Your task to perform on an android device: open app "Chime – Mobile Banking" Image 0: 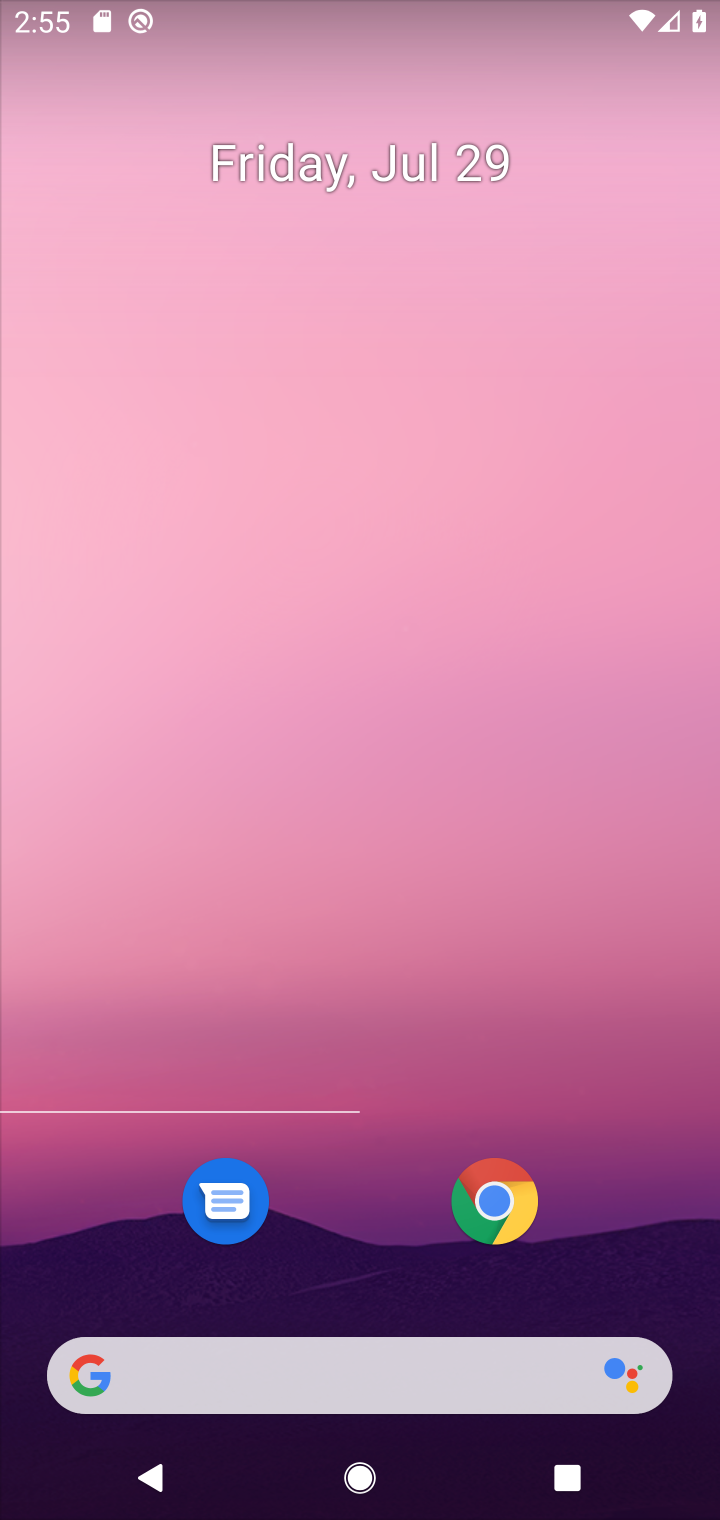
Step 0: press home button
Your task to perform on an android device: open app "Chime – Mobile Banking" Image 1: 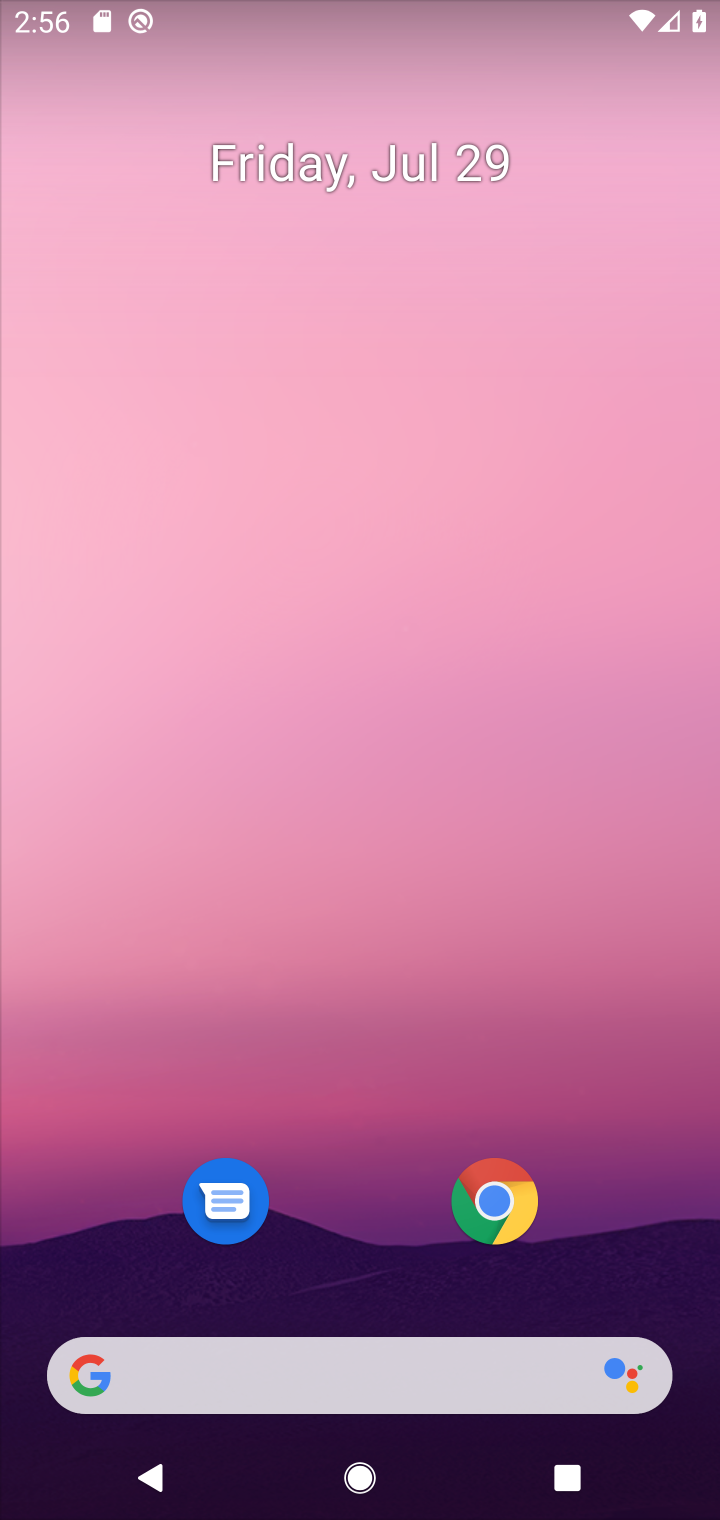
Step 1: drag from (275, 837) to (179, 298)
Your task to perform on an android device: open app "Chime – Mobile Banking" Image 2: 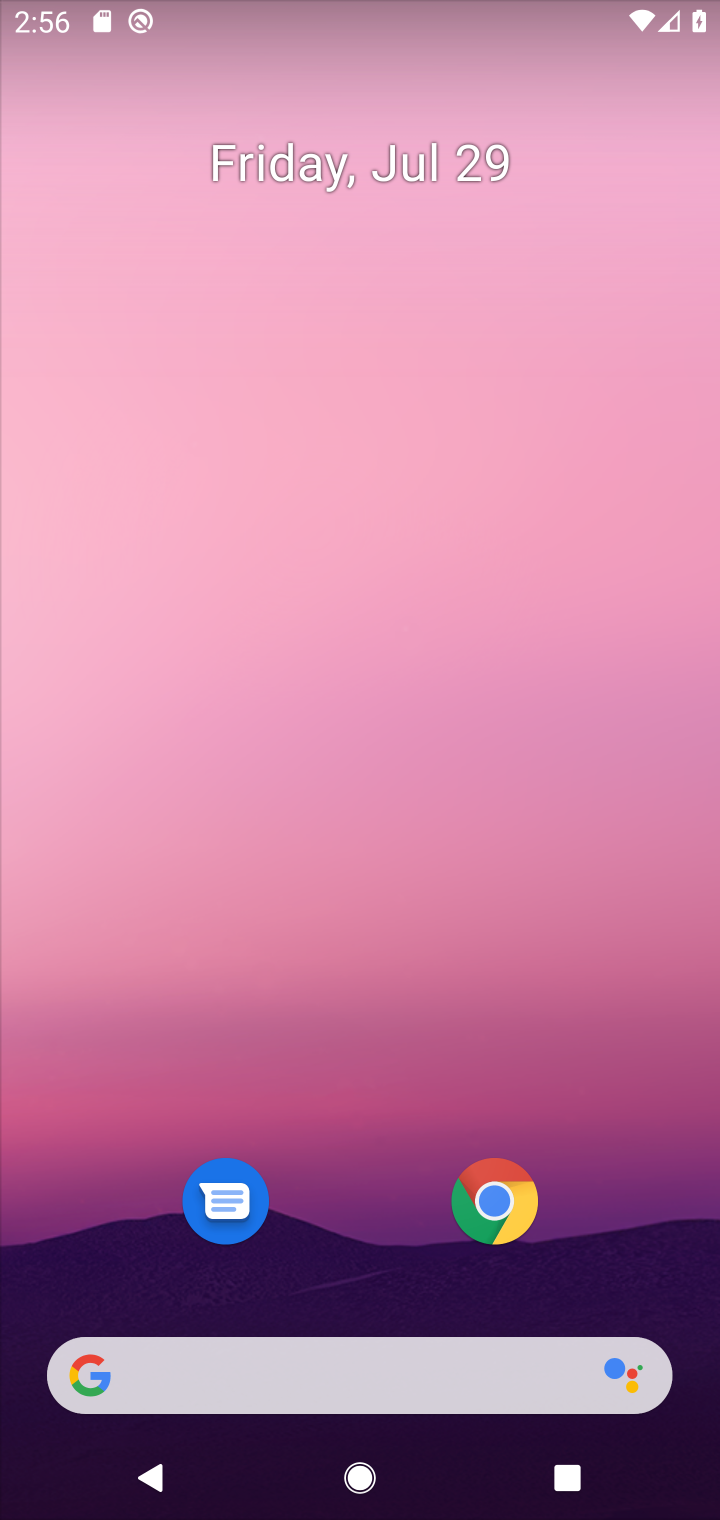
Step 2: drag from (349, 1015) to (370, 9)
Your task to perform on an android device: open app "Chime – Mobile Banking" Image 3: 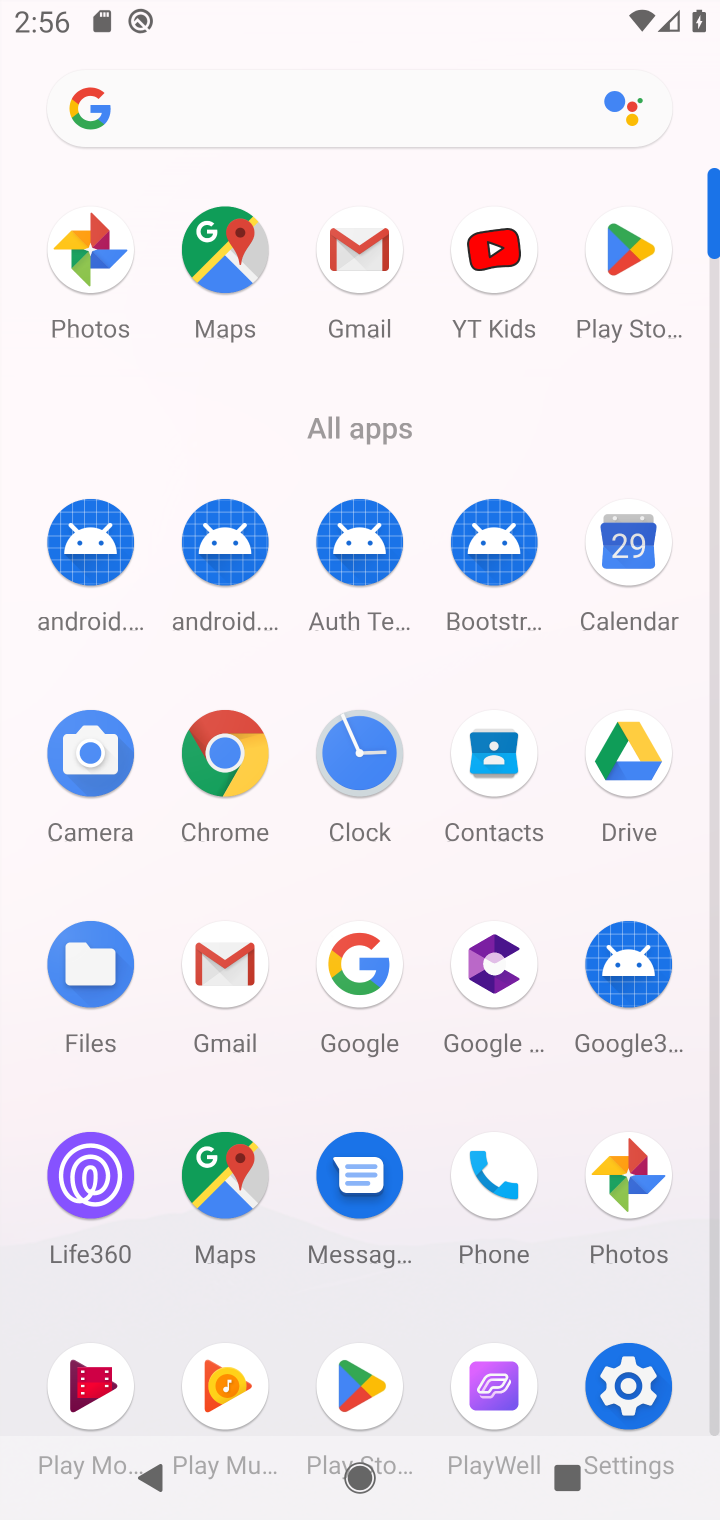
Step 3: click (649, 269)
Your task to perform on an android device: open app "Chime – Mobile Banking" Image 4: 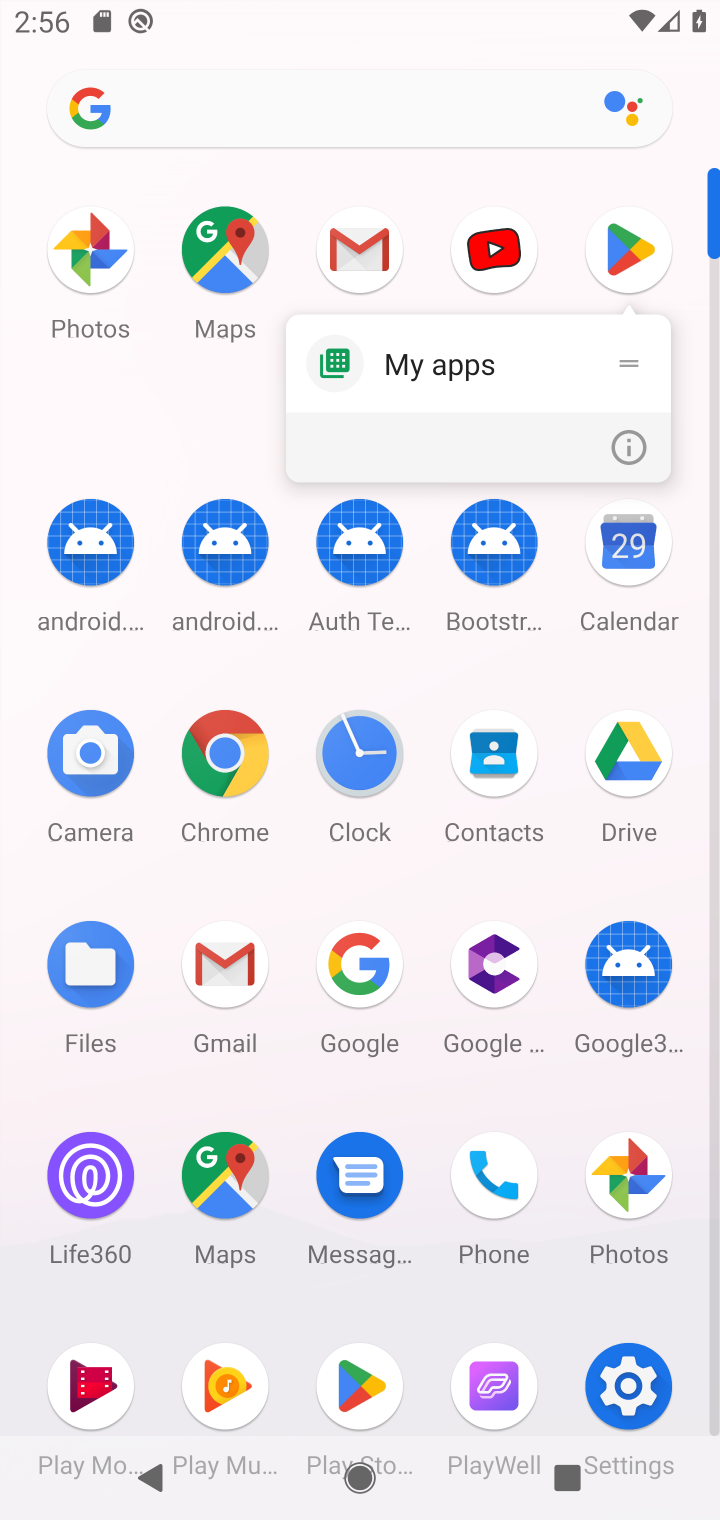
Step 4: click (612, 233)
Your task to perform on an android device: open app "Chime – Mobile Banking" Image 5: 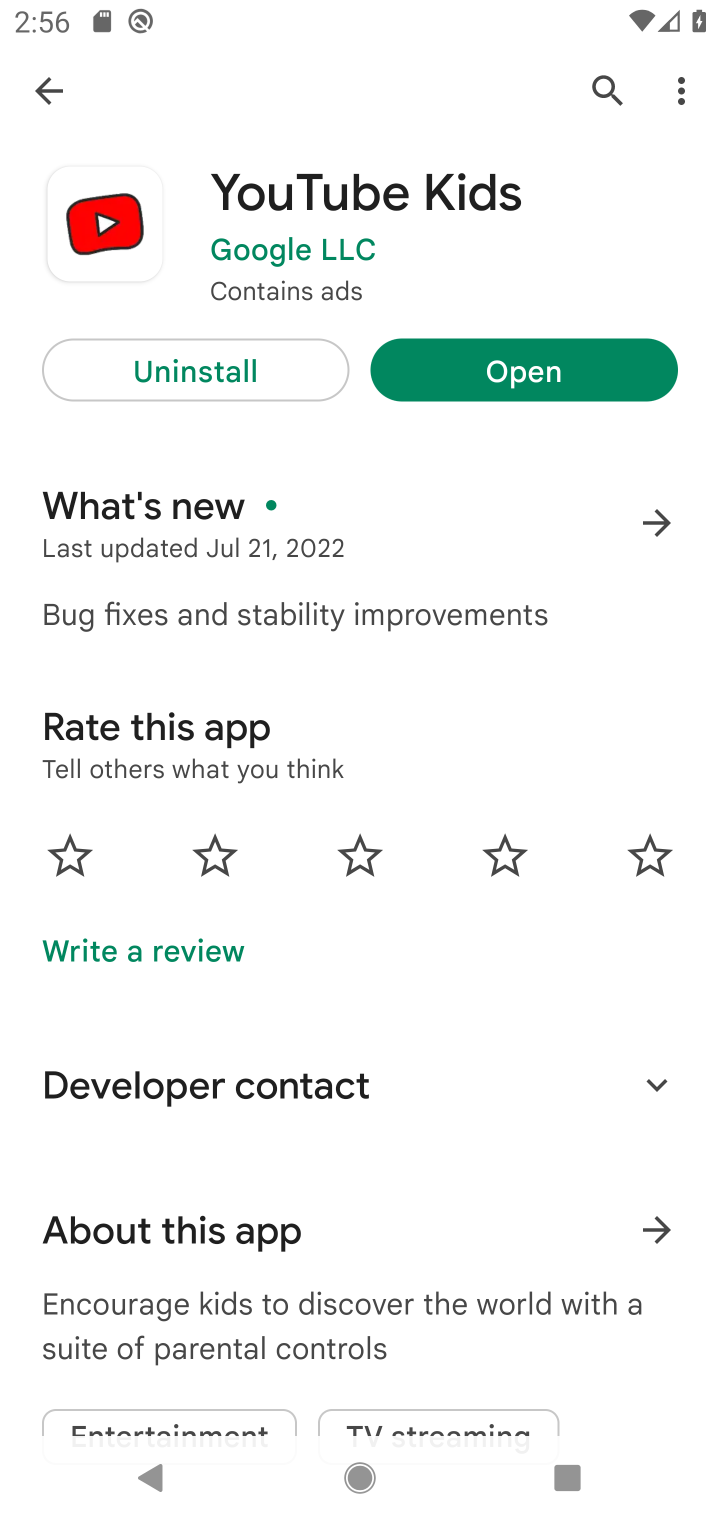
Step 5: click (614, 63)
Your task to perform on an android device: open app "Chime – Mobile Banking" Image 6: 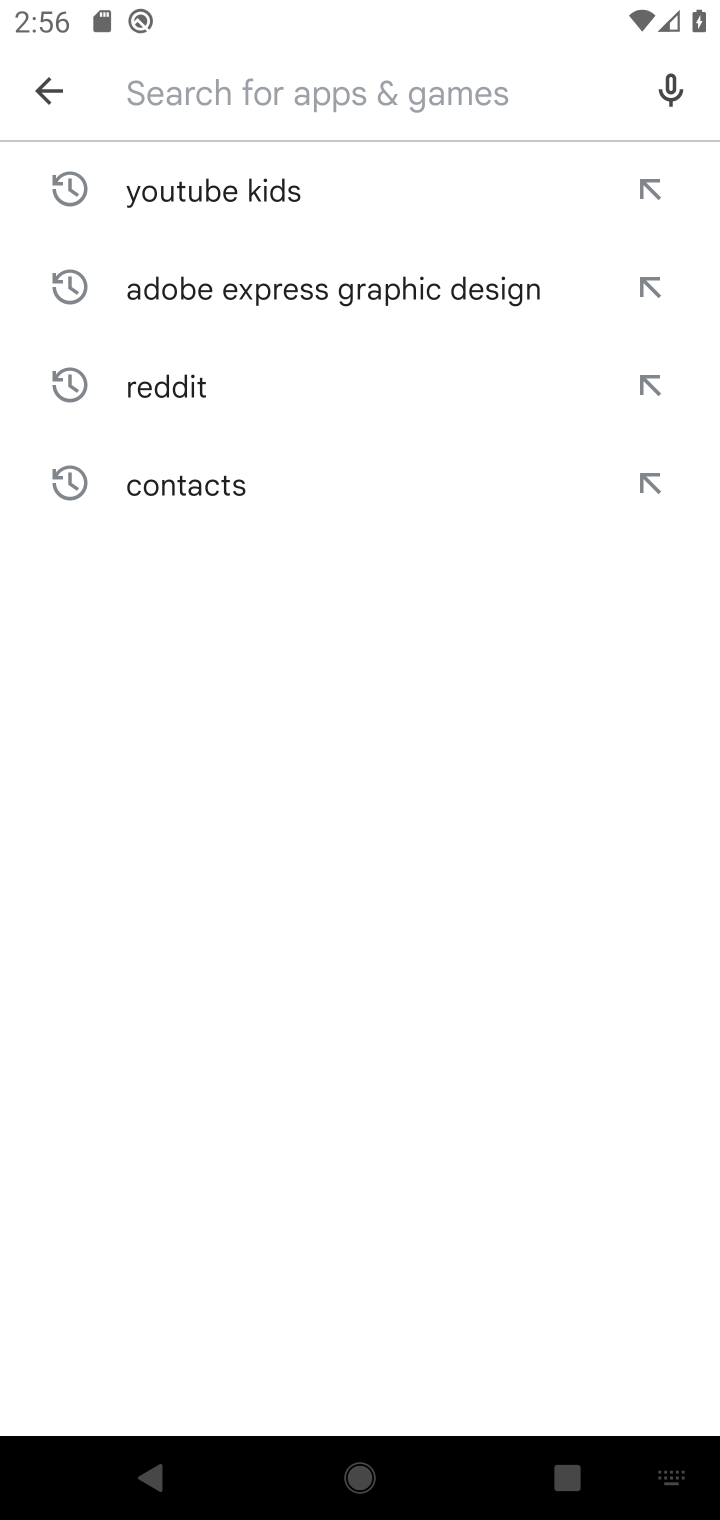
Step 6: type "Chime"
Your task to perform on an android device: open app "Chime – Mobile Banking" Image 7: 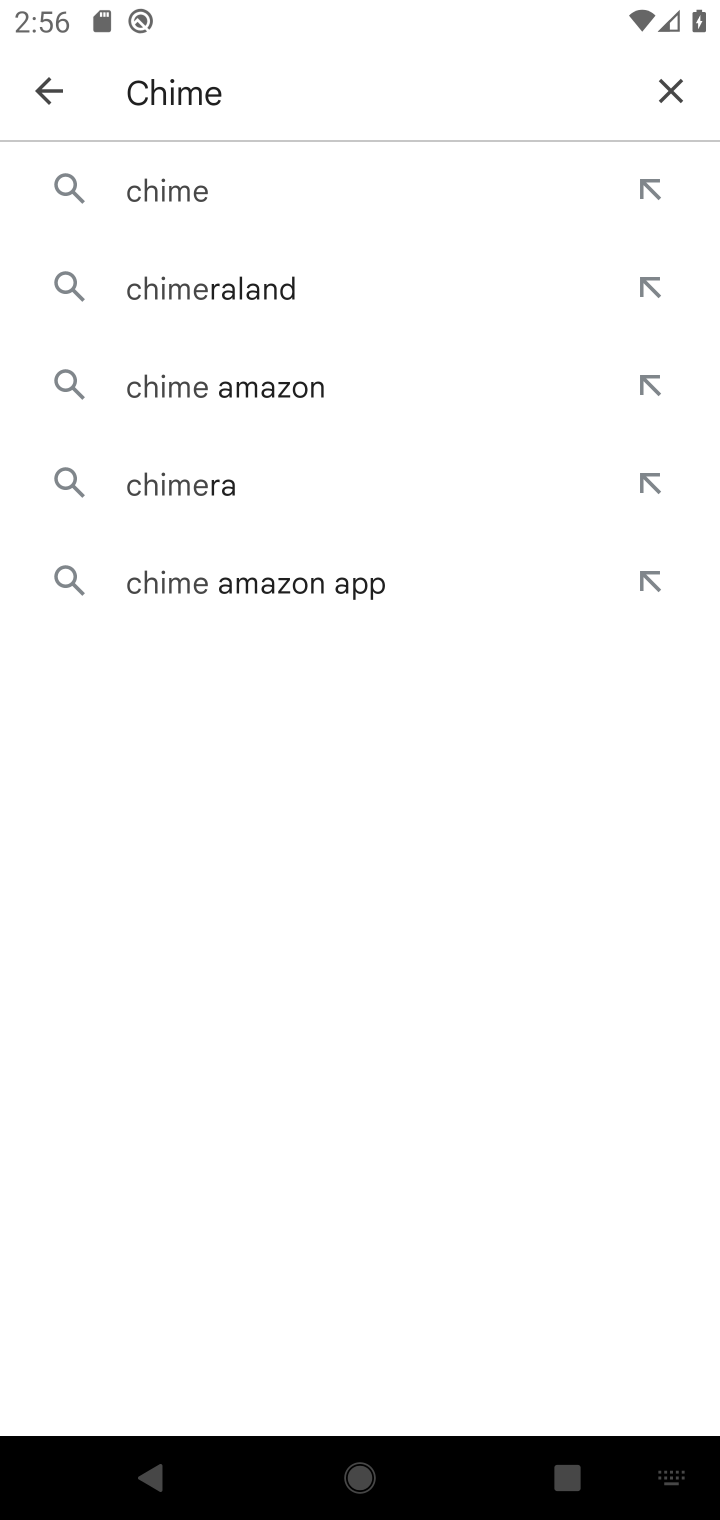
Step 7: click (152, 172)
Your task to perform on an android device: open app "Chime – Mobile Banking" Image 8: 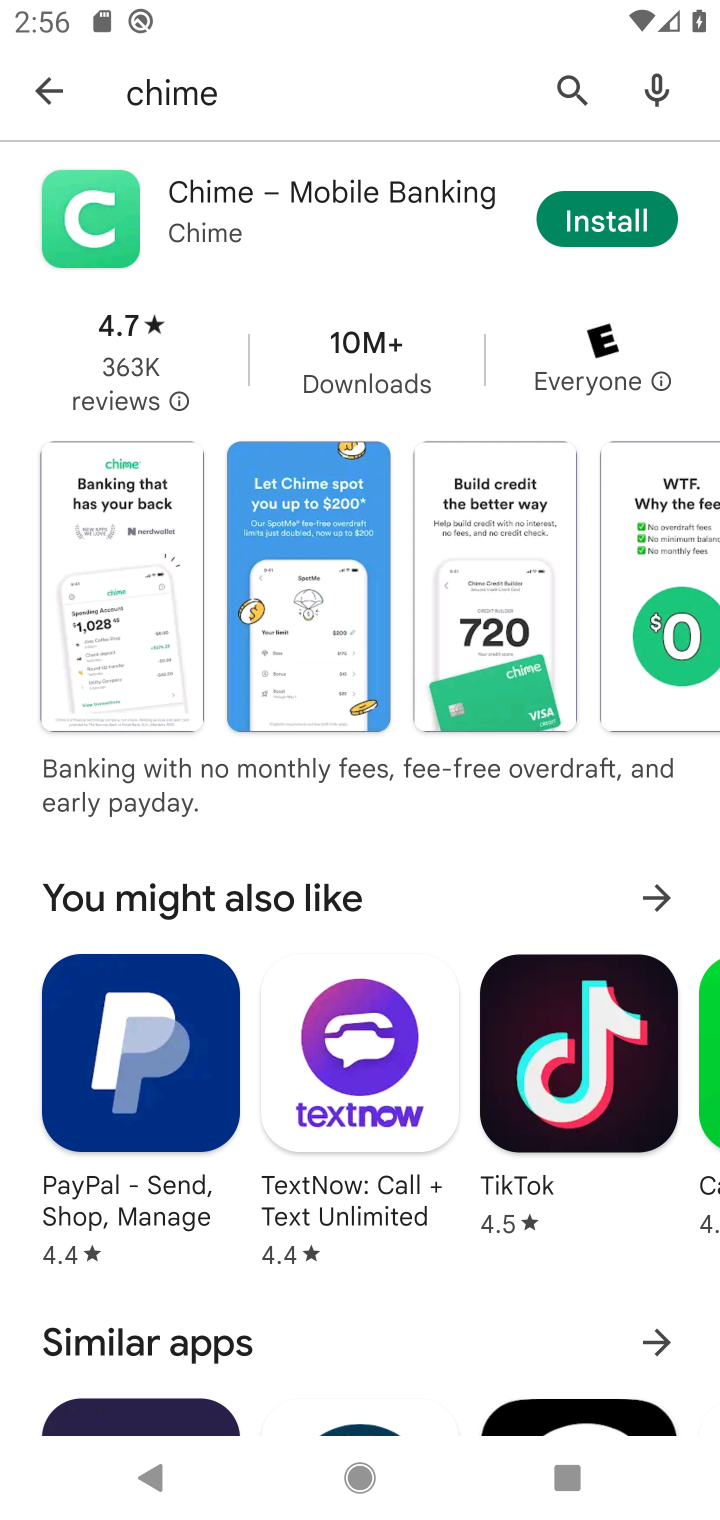
Step 8: click (589, 198)
Your task to perform on an android device: open app "Chime – Mobile Banking" Image 9: 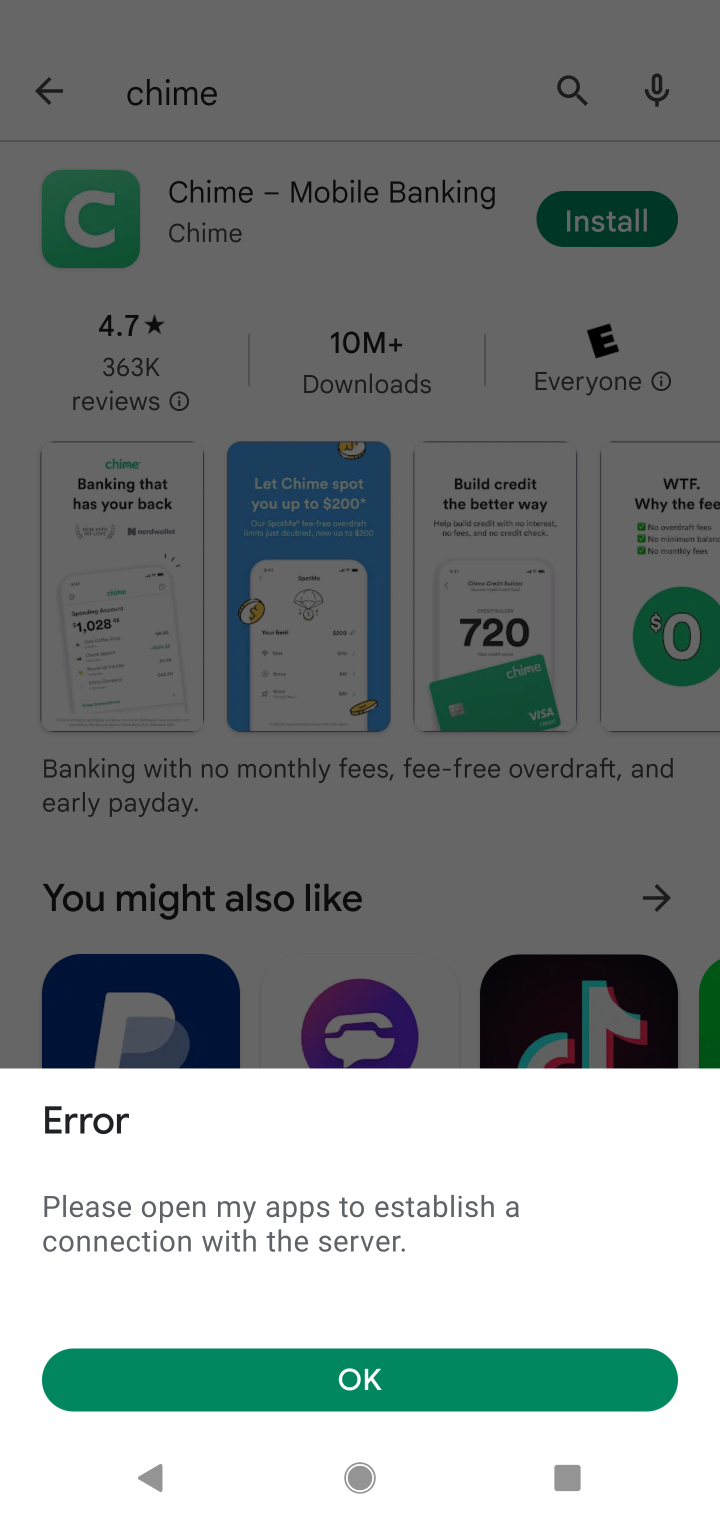
Step 9: click (164, 1369)
Your task to perform on an android device: open app "Chime – Mobile Banking" Image 10: 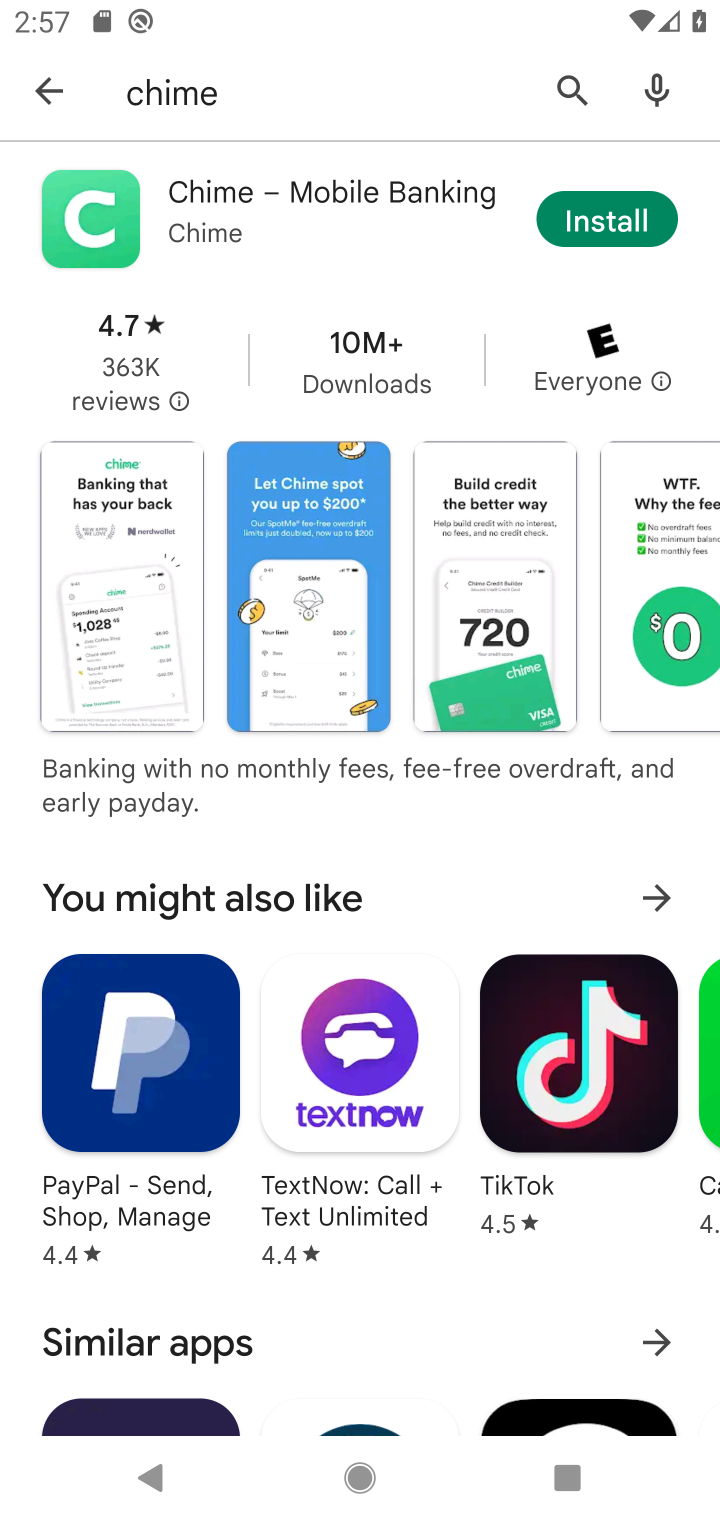
Step 10: click (581, 225)
Your task to perform on an android device: open app "Chime – Mobile Banking" Image 11: 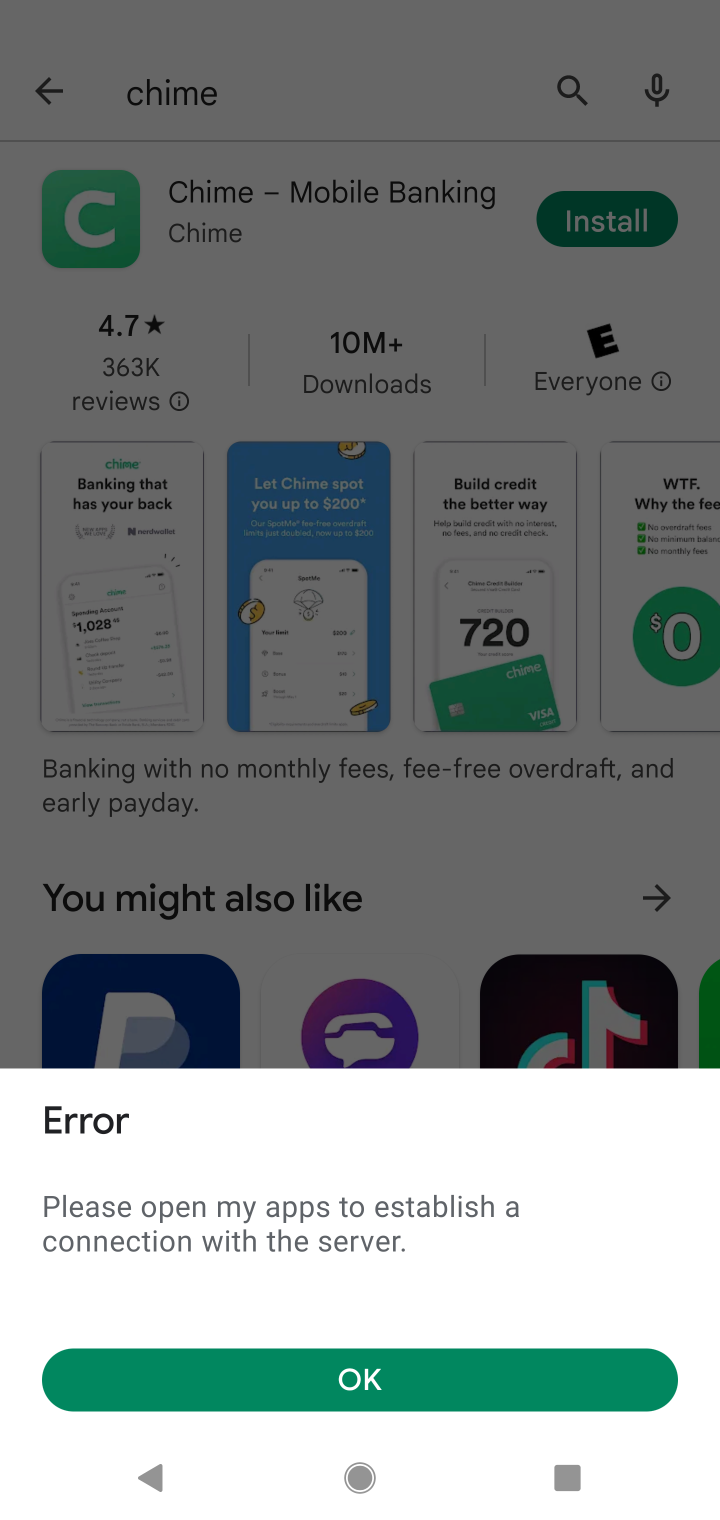
Step 11: task complete